Your task to perform on an android device: turn off smart reply in the gmail app Image 0: 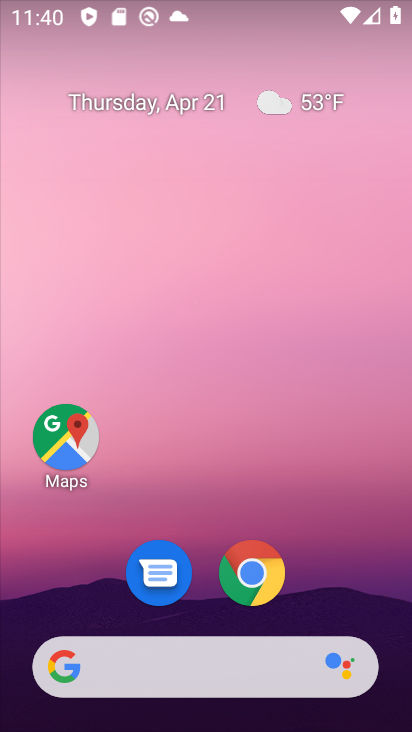
Step 0: drag from (181, 657) to (374, 101)
Your task to perform on an android device: turn off smart reply in the gmail app Image 1: 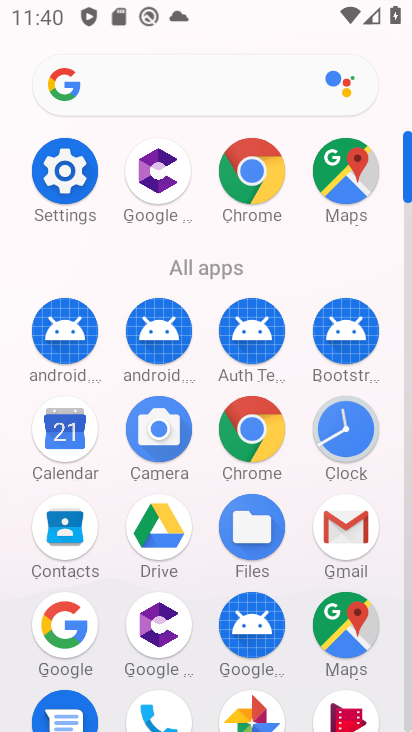
Step 1: click (336, 544)
Your task to perform on an android device: turn off smart reply in the gmail app Image 2: 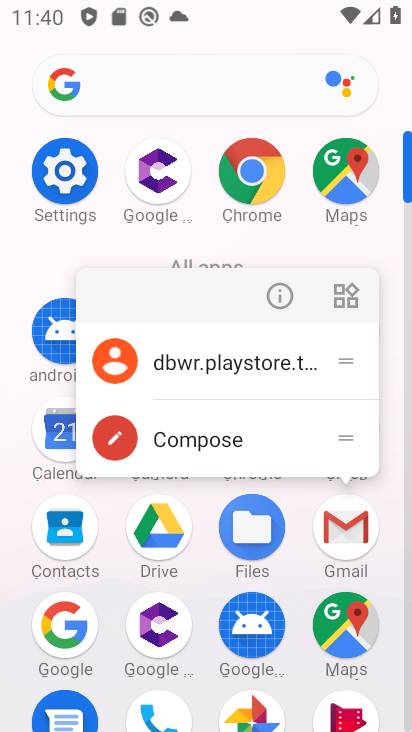
Step 2: click (351, 539)
Your task to perform on an android device: turn off smart reply in the gmail app Image 3: 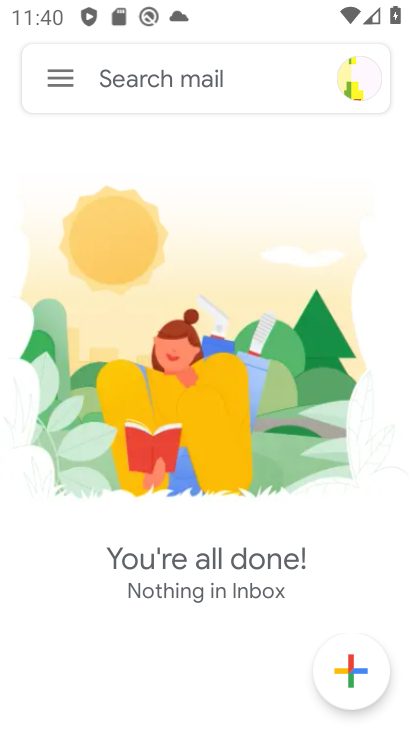
Step 3: click (62, 81)
Your task to perform on an android device: turn off smart reply in the gmail app Image 4: 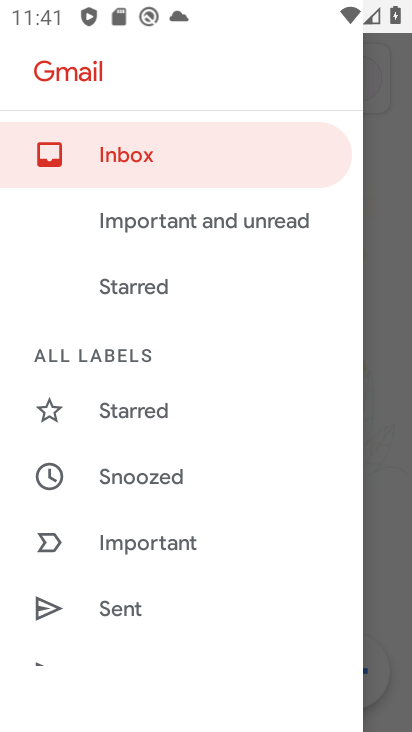
Step 4: drag from (163, 603) to (290, 145)
Your task to perform on an android device: turn off smart reply in the gmail app Image 5: 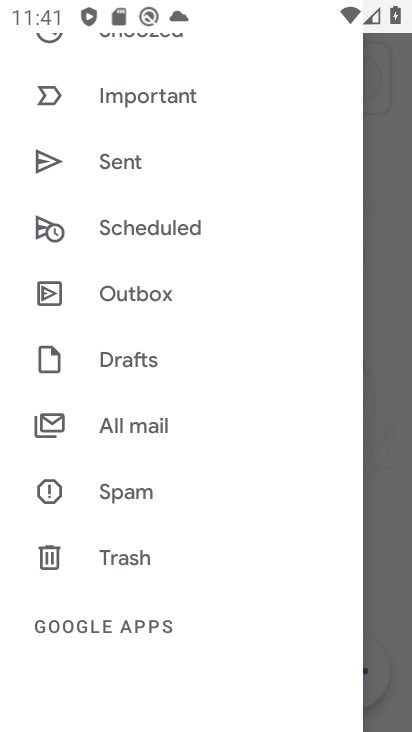
Step 5: drag from (194, 567) to (311, 78)
Your task to perform on an android device: turn off smart reply in the gmail app Image 6: 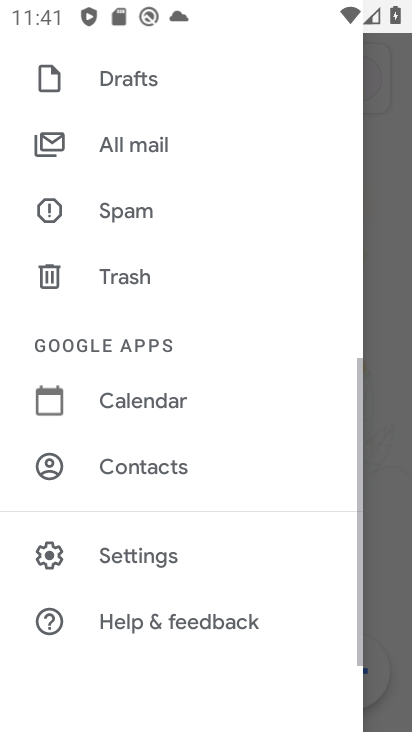
Step 6: click (137, 551)
Your task to perform on an android device: turn off smart reply in the gmail app Image 7: 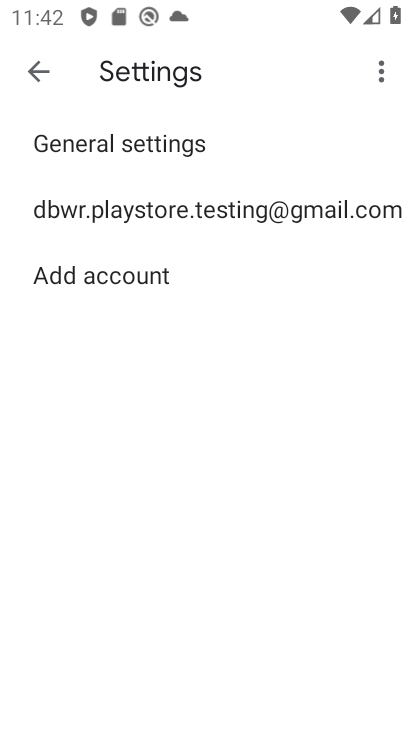
Step 7: click (276, 209)
Your task to perform on an android device: turn off smart reply in the gmail app Image 8: 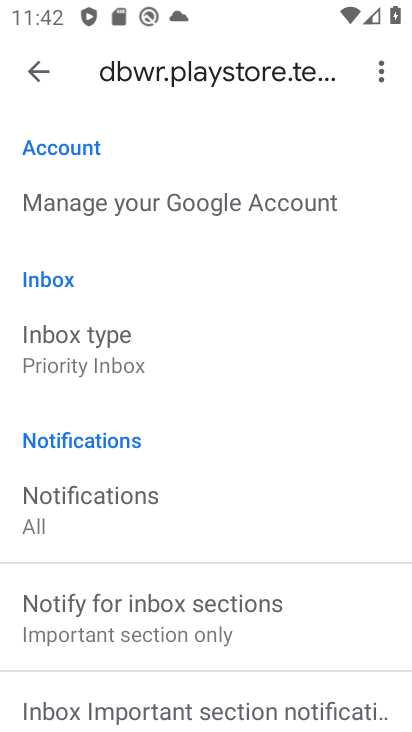
Step 8: drag from (134, 603) to (341, 152)
Your task to perform on an android device: turn off smart reply in the gmail app Image 9: 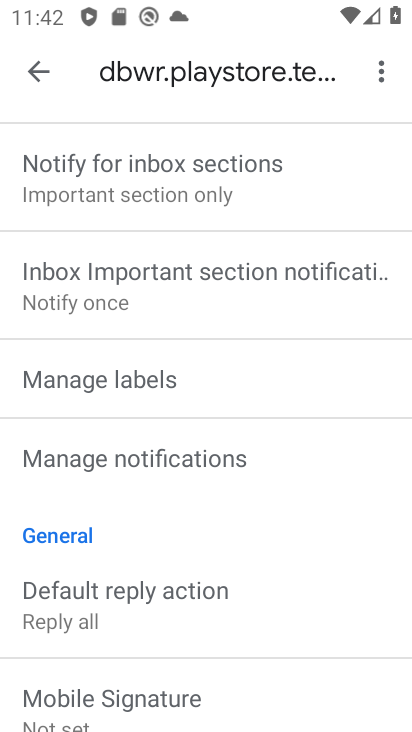
Step 9: drag from (178, 604) to (346, 3)
Your task to perform on an android device: turn off smart reply in the gmail app Image 10: 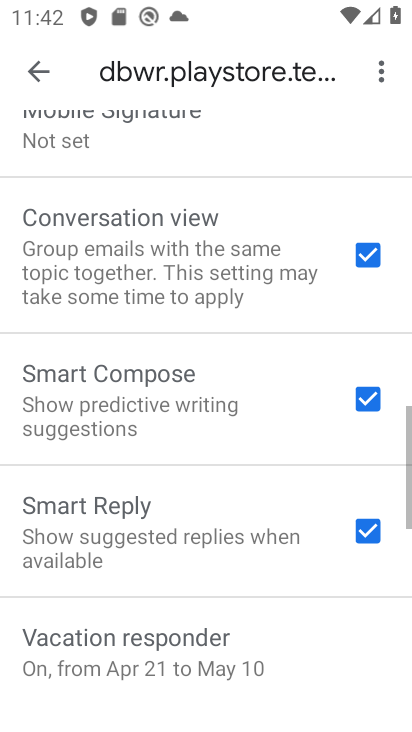
Step 10: click (369, 525)
Your task to perform on an android device: turn off smart reply in the gmail app Image 11: 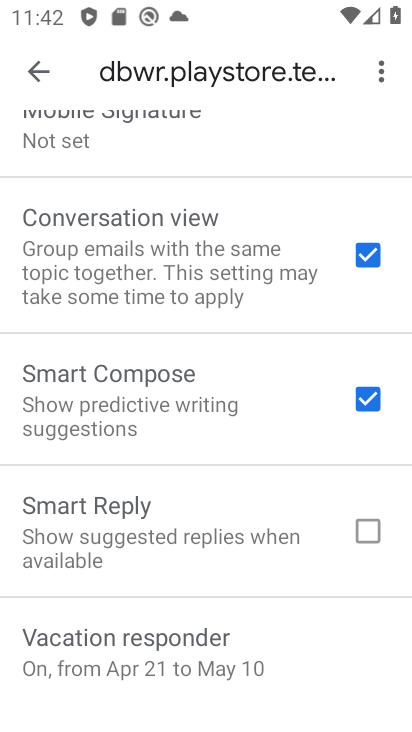
Step 11: task complete